Your task to perform on an android device: toggle improve location accuracy Image 0: 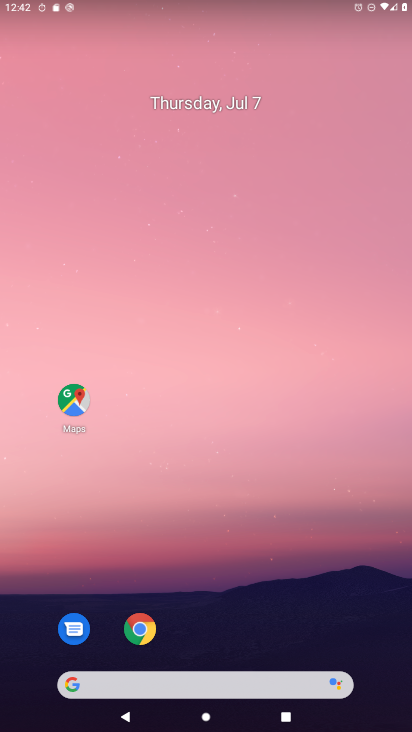
Step 0: drag from (226, 634) to (161, 77)
Your task to perform on an android device: toggle improve location accuracy Image 1: 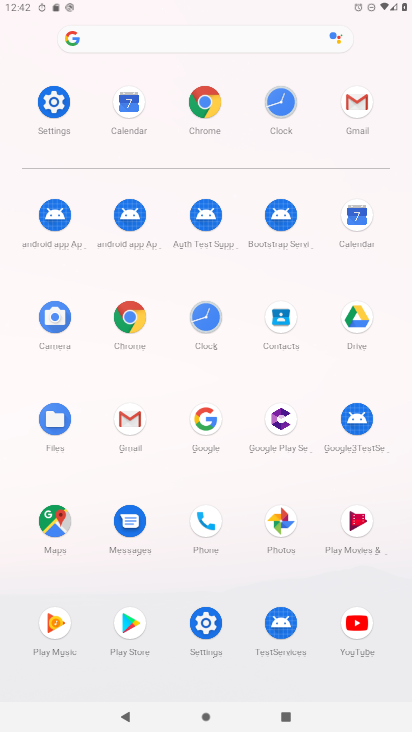
Step 1: click (49, 106)
Your task to perform on an android device: toggle improve location accuracy Image 2: 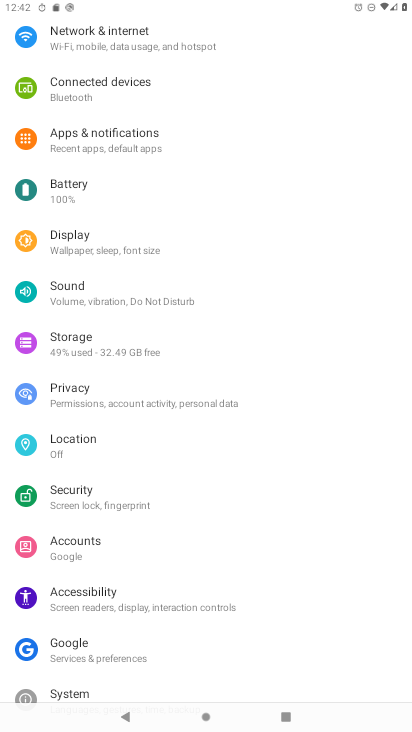
Step 2: click (89, 454)
Your task to perform on an android device: toggle improve location accuracy Image 3: 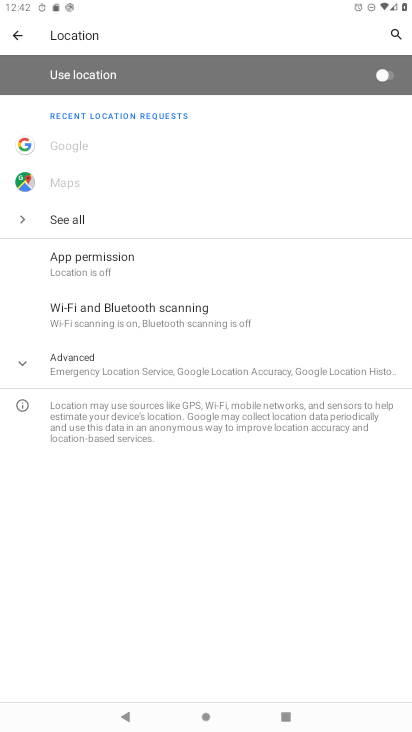
Step 3: click (109, 359)
Your task to perform on an android device: toggle improve location accuracy Image 4: 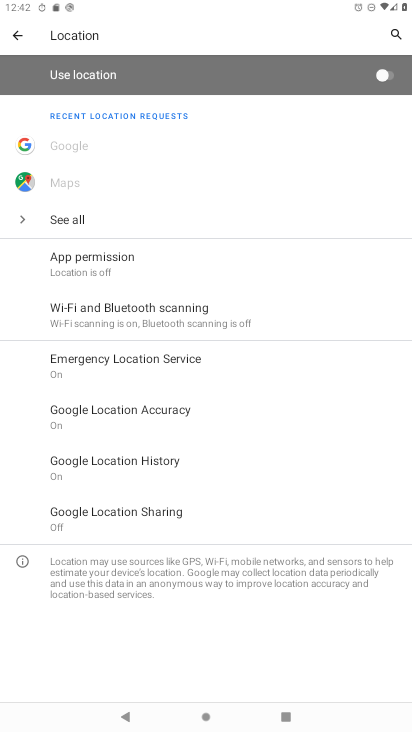
Step 4: click (123, 411)
Your task to perform on an android device: toggle improve location accuracy Image 5: 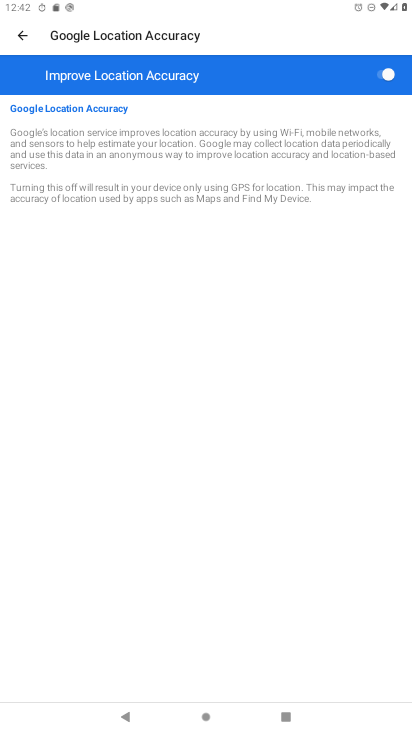
Step 5: click (385, 85)
Your task to perform on an android device: toggle improve location accuracy Image 6: 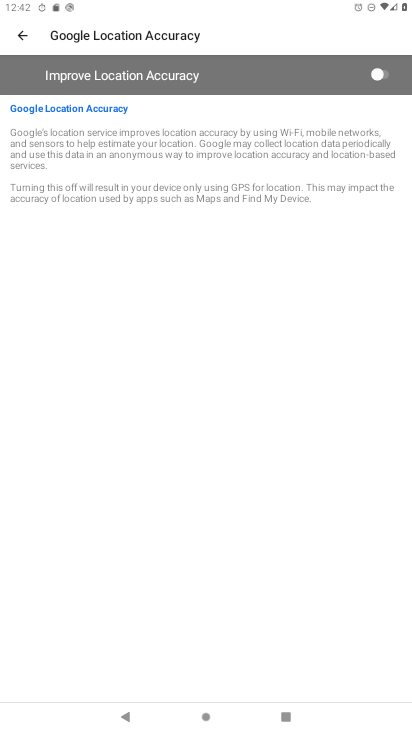
Step 6: task complete